Your task to perform on an android device: find which apps use the phone's location Image 0: 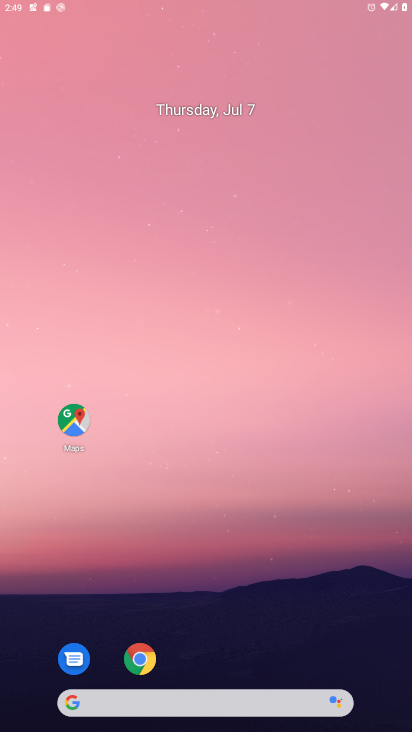
Step 0: click (335, 194)
Your task to perform on an android device: find which apps use the phone's location Image 1: 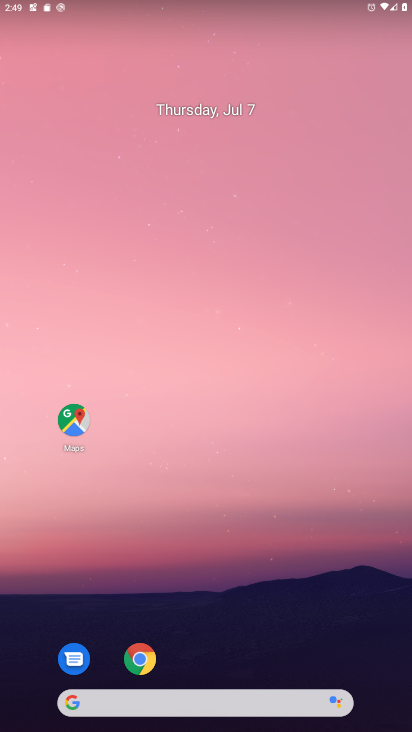
Step 1: drag from (197, 643) to (262, 210)
Your task to perform on an android device: find which apps use the phone's location Image 2: 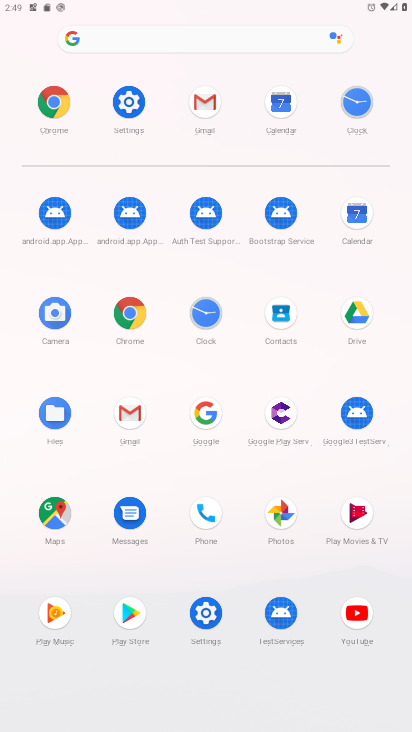
Step 2: click (128, 92)
Your task to perform on an android device: find which apps use the phone's location Image 3: 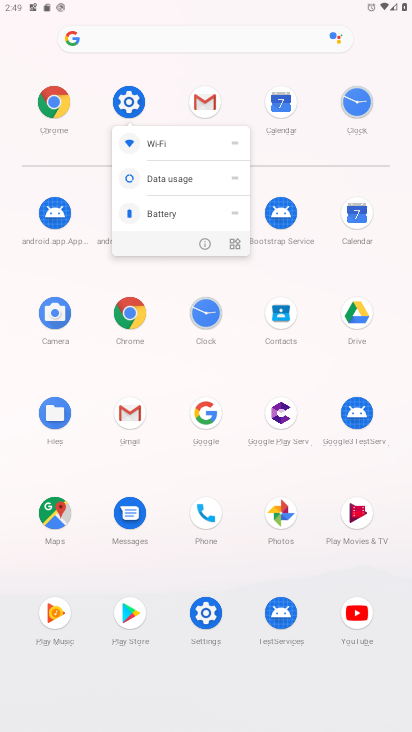
Step 3: click (201, 246)
Your task to perform on an android device: find which apps use the phone's location Image 4: 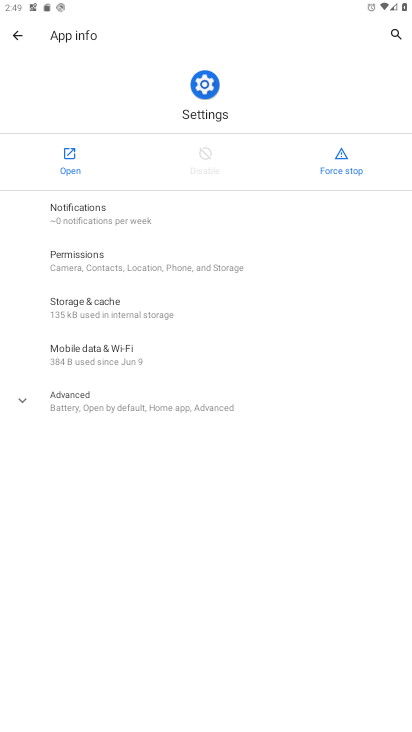
Step 4: click (64, 154)
Your task to perform on an android device: find which apps use the phone's location Image 5: 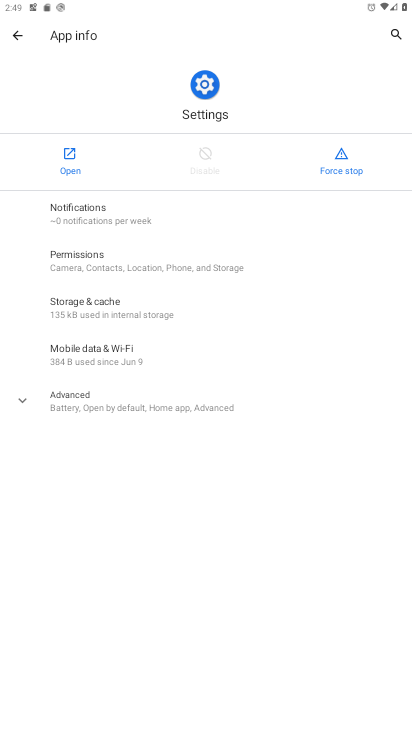
Step 5: click (64, 154)
Your task to perform on an android device: find which apps use the phone's location Image 6: 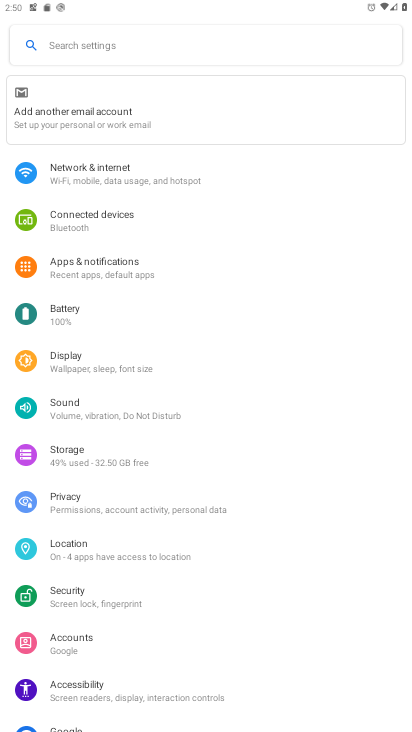
Step 6: click (74, 553)
Your task to perform on an android device: find which apps use the phone's location Image 7: 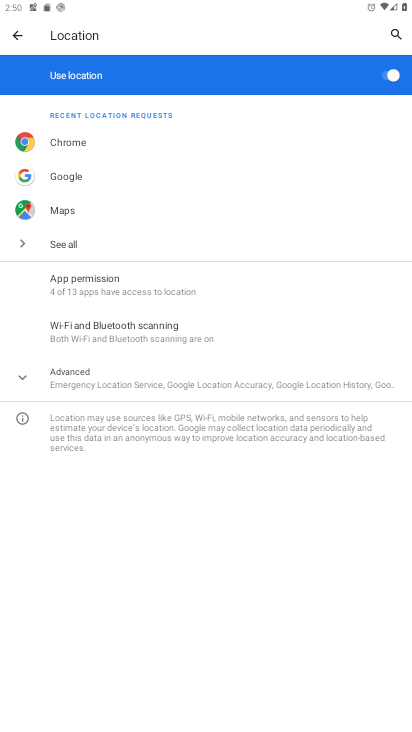
Step 7: drag from (259, 434) to (352, 133)
Your task to perform on an android device: find which apps use the phone's location Image 8: 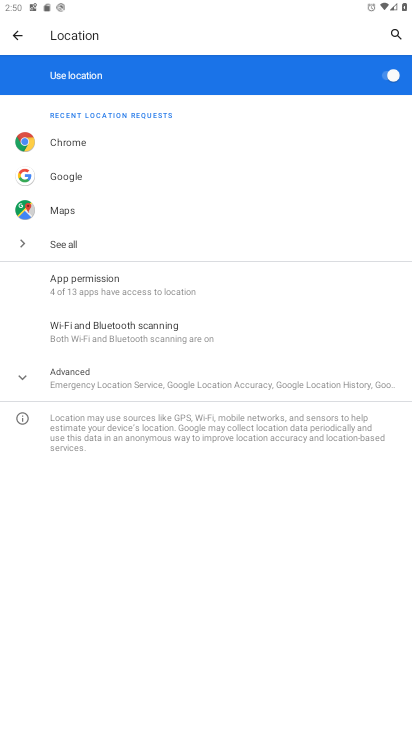
Step 8: drag from (206, 523) to (243, 283)
Your task to perform on an android device: find which apps use the phone's location Image 9: 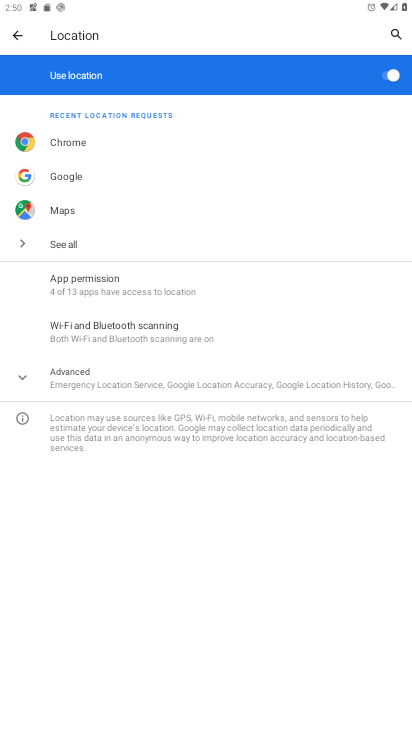
Step 9: click (83, 375)
Your task to perform on an android device: find which apps use the phone's location Image 10: 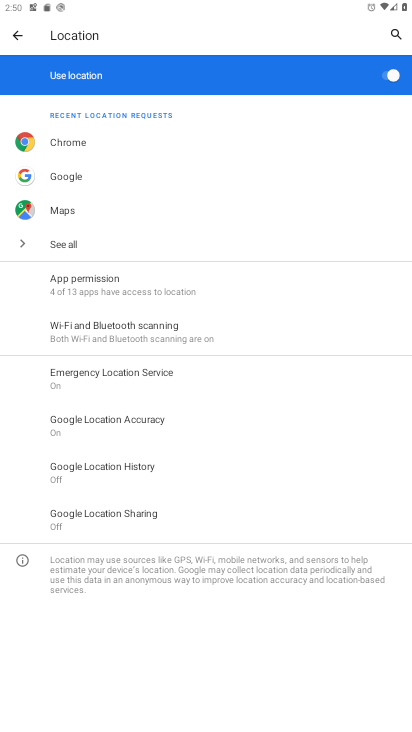
Step 10: click (129, 274)
Your task to perform on an android device: find which apps use the phone's location Image 11: 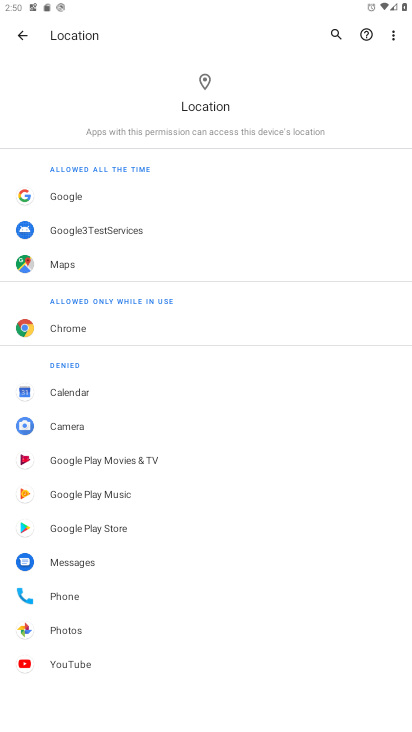
Step 11: task complete